Your task to perform on an android device: Open the web browser Image 0: 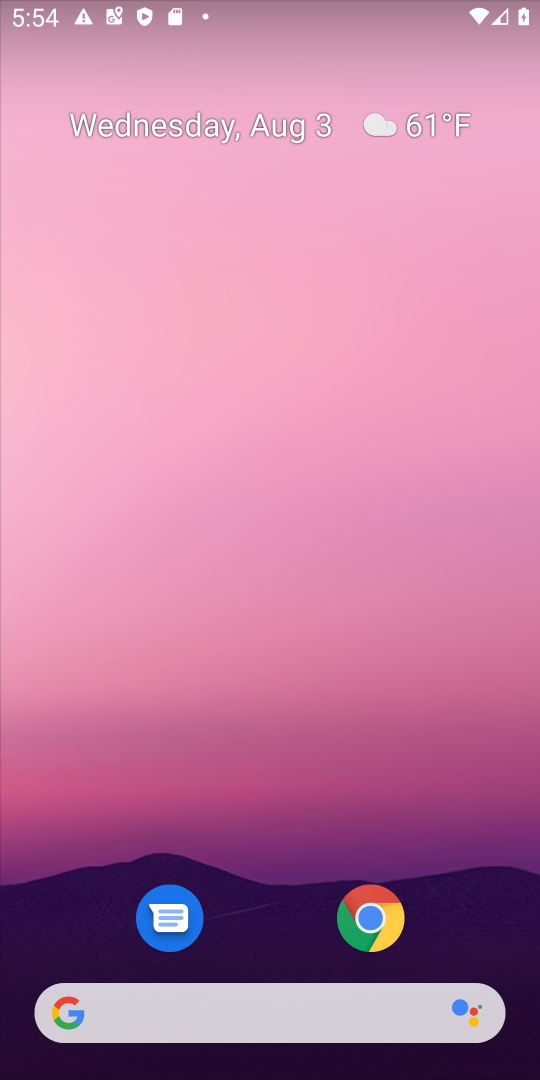
Step 0: click (365, 924)
Your task to perform on an android device: Open the web browser Image 1: 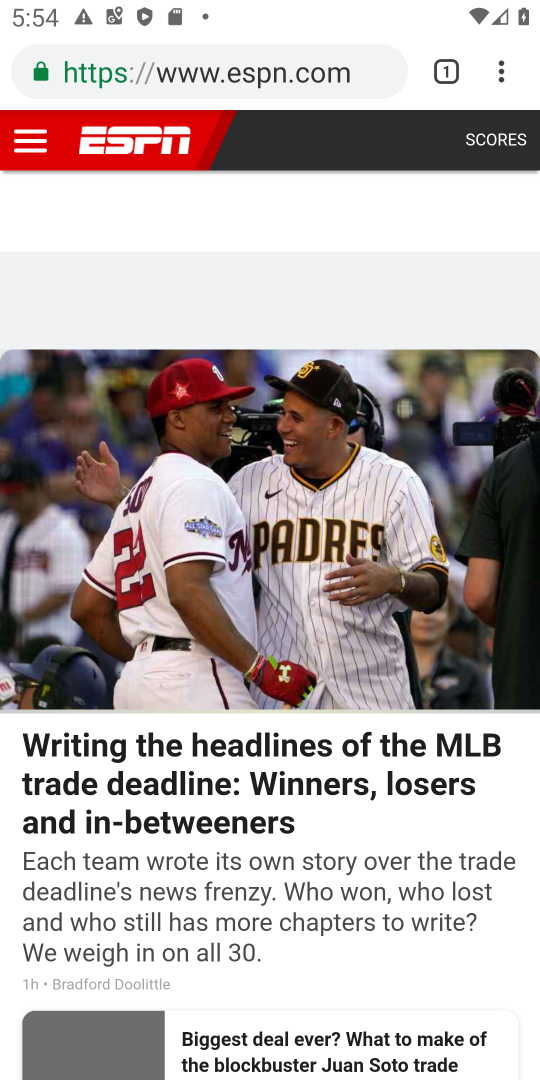
Step 1: task complete